Your task to perform on an android device: Open Wikipedia Image 0: 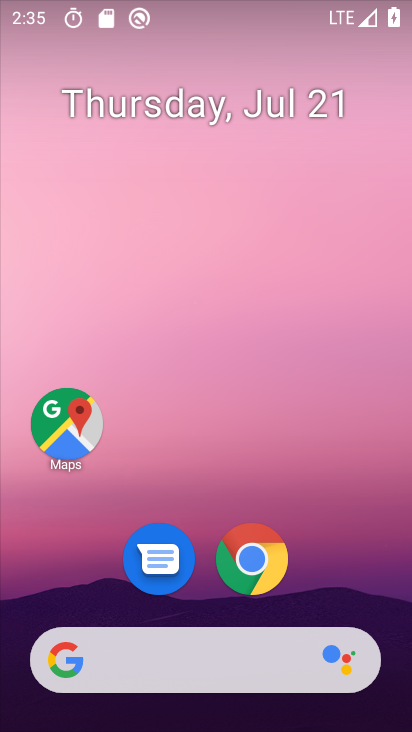
Step 0: drag from (376, 556) to (335, 73)
Your task to perform on an android device: Open Wikipedia Image 1: 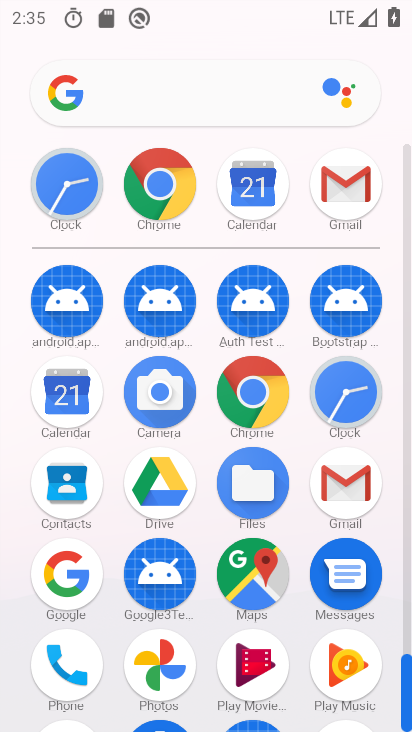
Step 1: click (252, 388)
Your task to perform on an android device: Open Wikipedia Image 2: 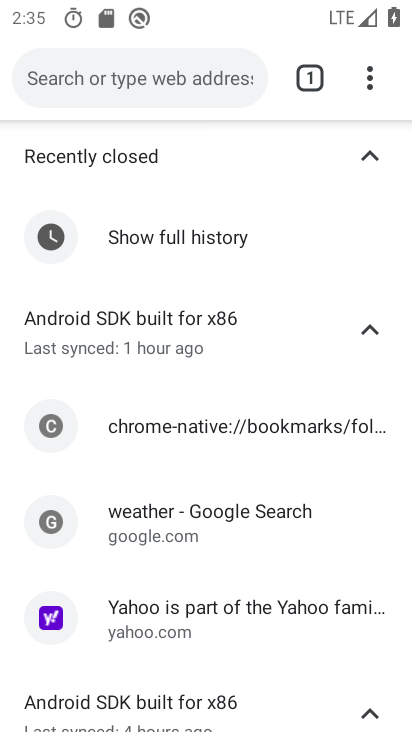
Step 2: click (197, 72)
Your task to perform on an android device: Open Wikipedia Image 3: 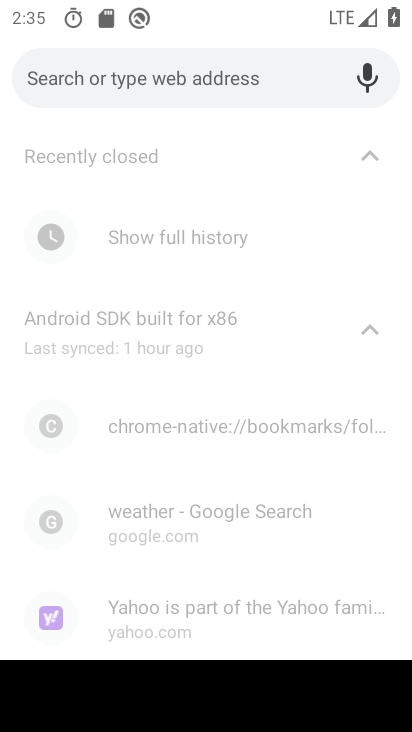
Step 3: type "wikipedia"
Your task to perform on an android device: Open Wikipedia Image 4: 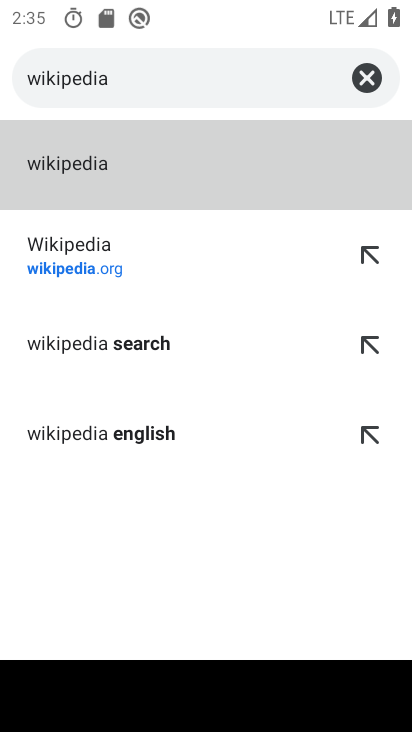
Step 4: click (342, 158)
Your task to perform on an android device: Open Wikipedia Image 5: 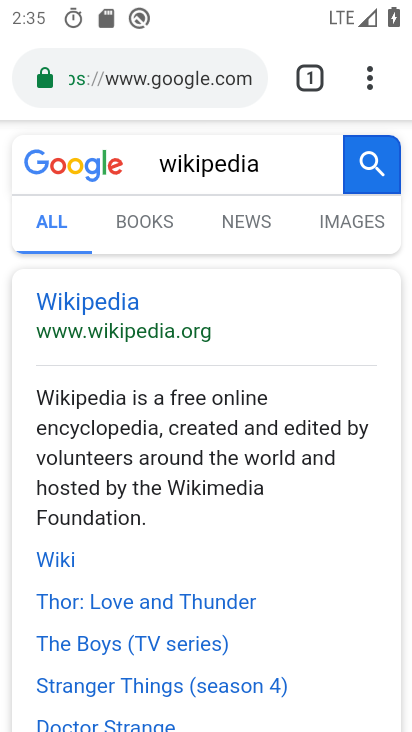
Step 5: task complete